Your task to perform on an android device: What's a good restaurant in Chicago? Image 0: 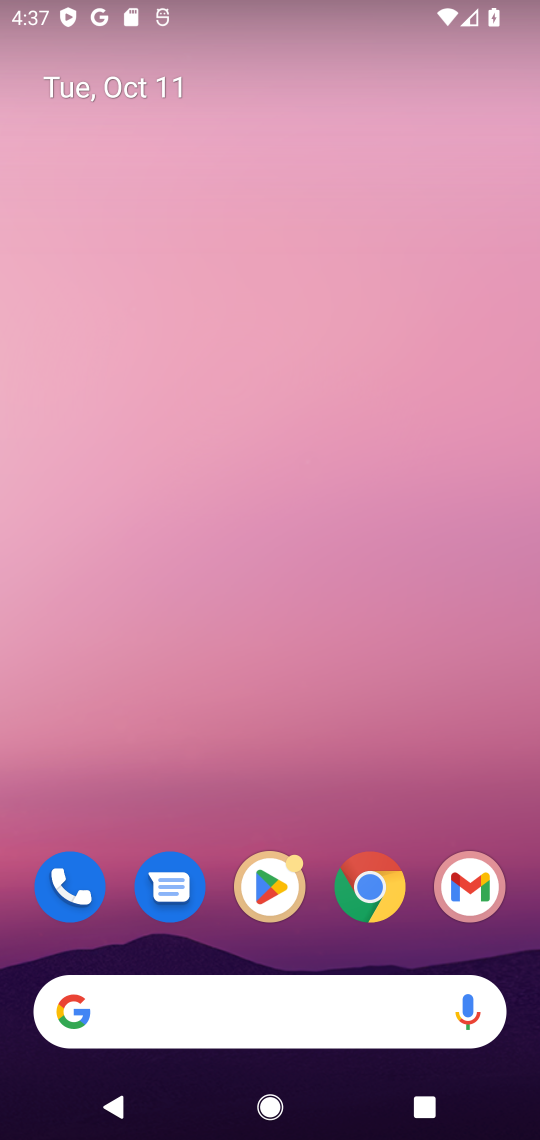
Step 0: click (328, 998)
Your task to perform on an android device: What's a good restaurant in Chicago? Image 1: 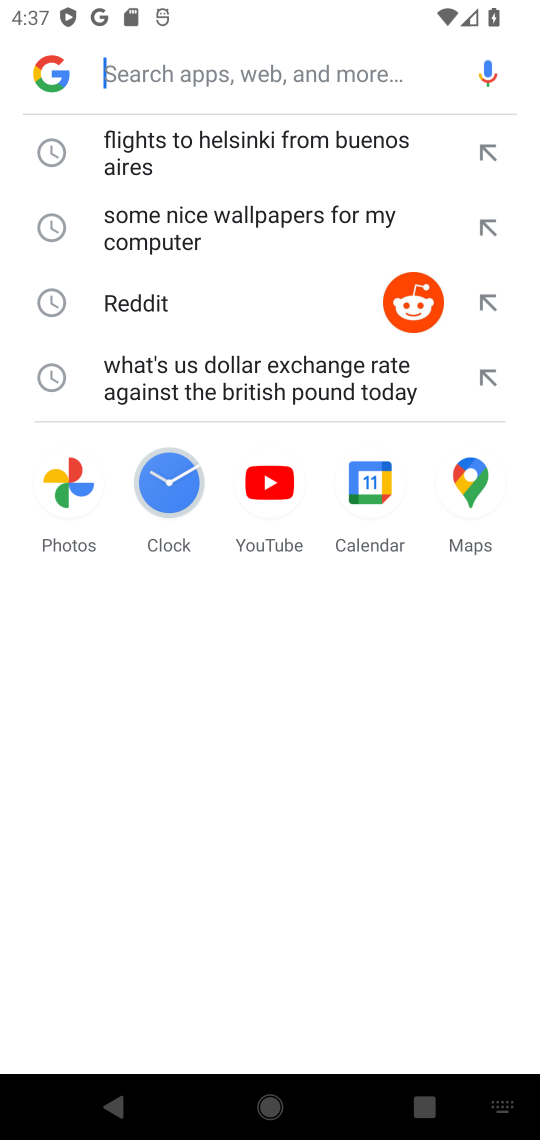
Step 1: type "good restaurant in Chicago"
Your task to perform on an android device: What's a good restaurant in Chicago? Image 2: 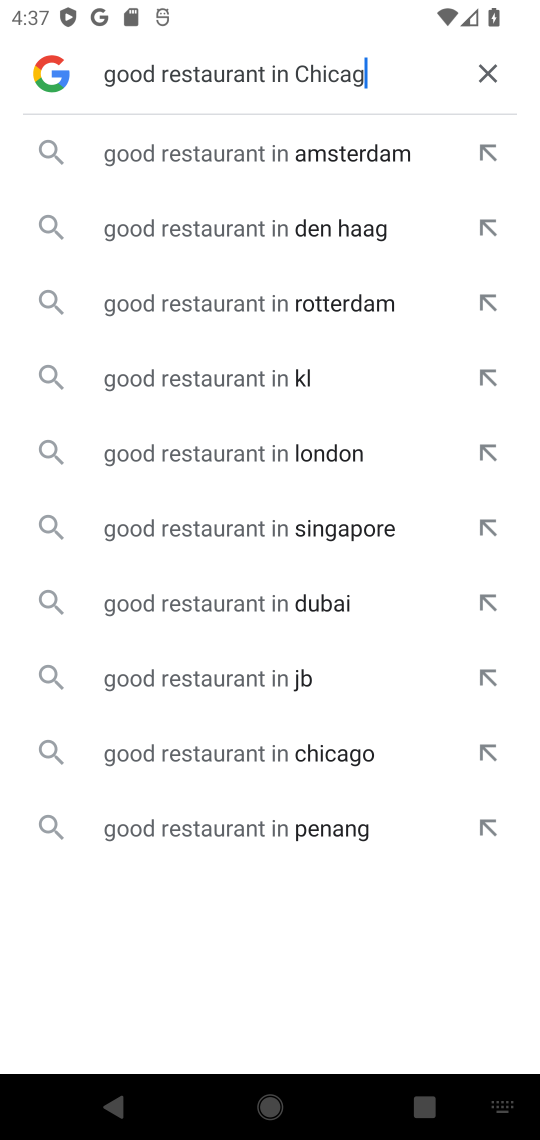
Step 2: type ""
Your task to perform on an android device: What's a good restaurant in Chicago? Image 3: 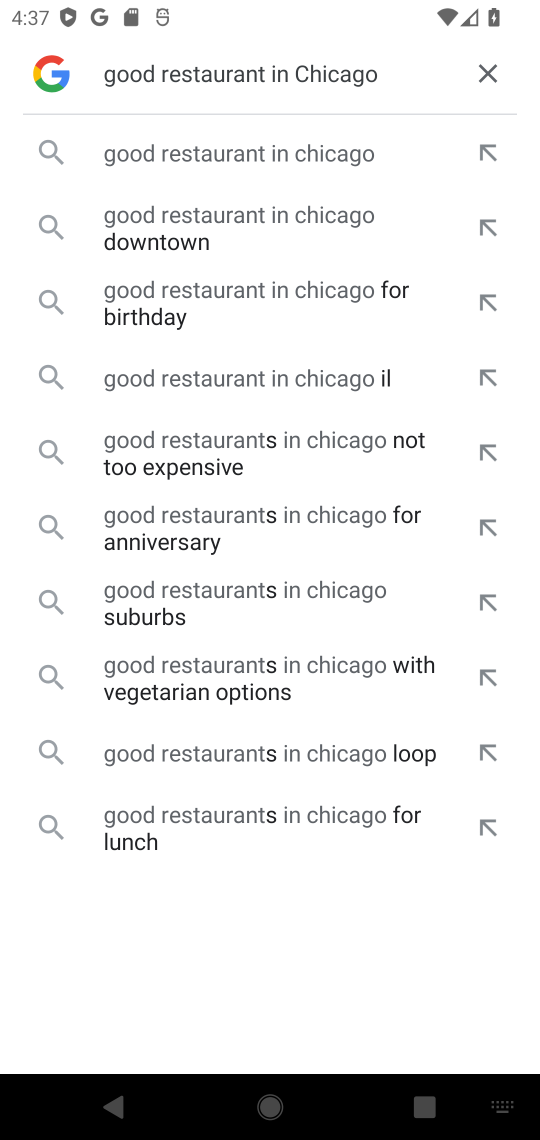
Step 3: type ""
Your task to perform on an android device: What's a good restaurant in Chicago? Image 4: 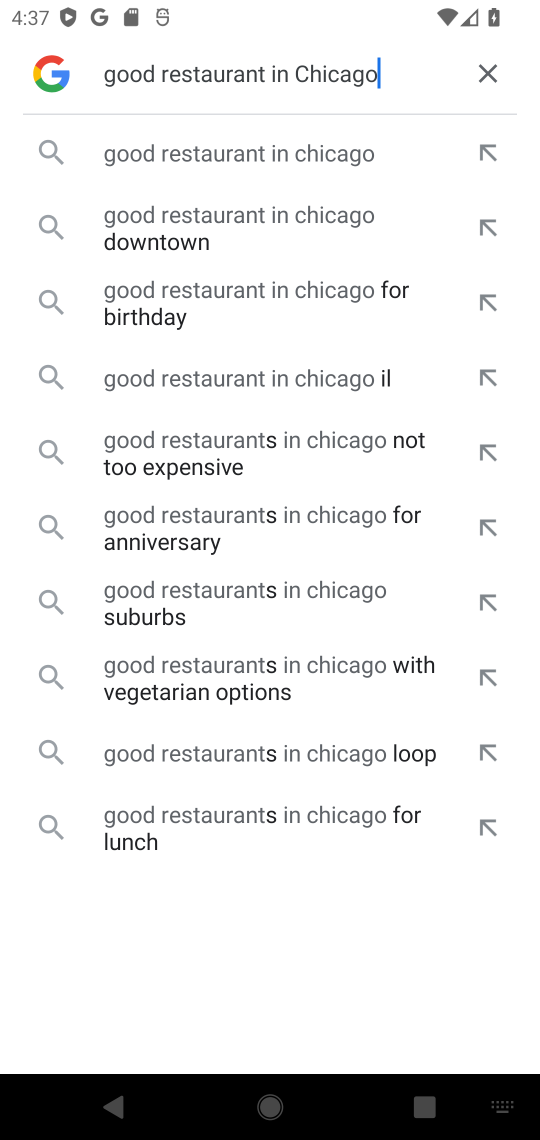
Step 4: press enter
Your task to perform on an android device: What's a good restaurant in Chicago? Image 5: 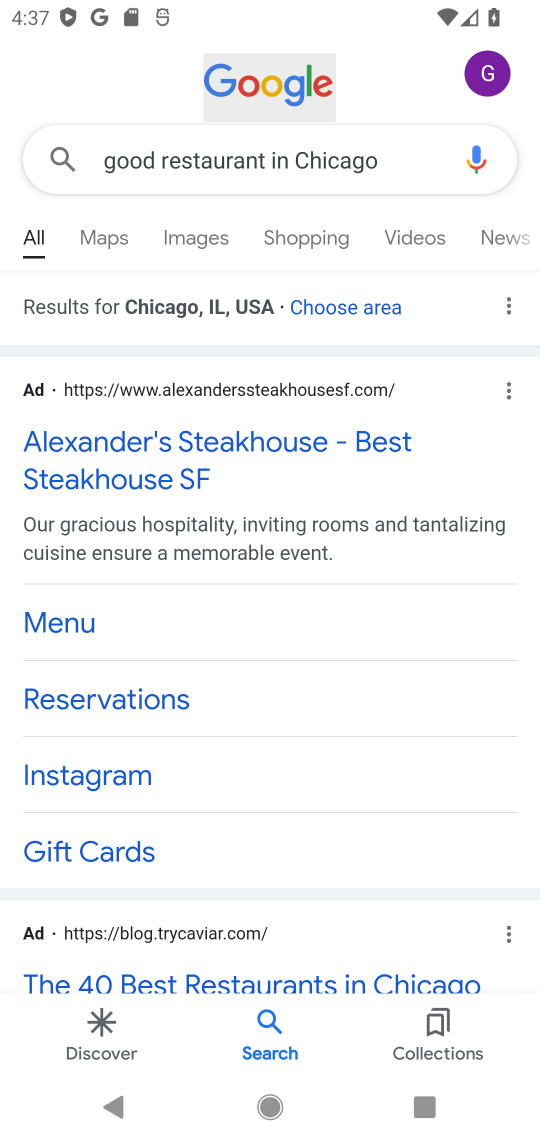
Step 5: drag from (299, 677) to (332, 492)
Your task to perform on an android device: What's a good restaurant in Chicago? Image 6: 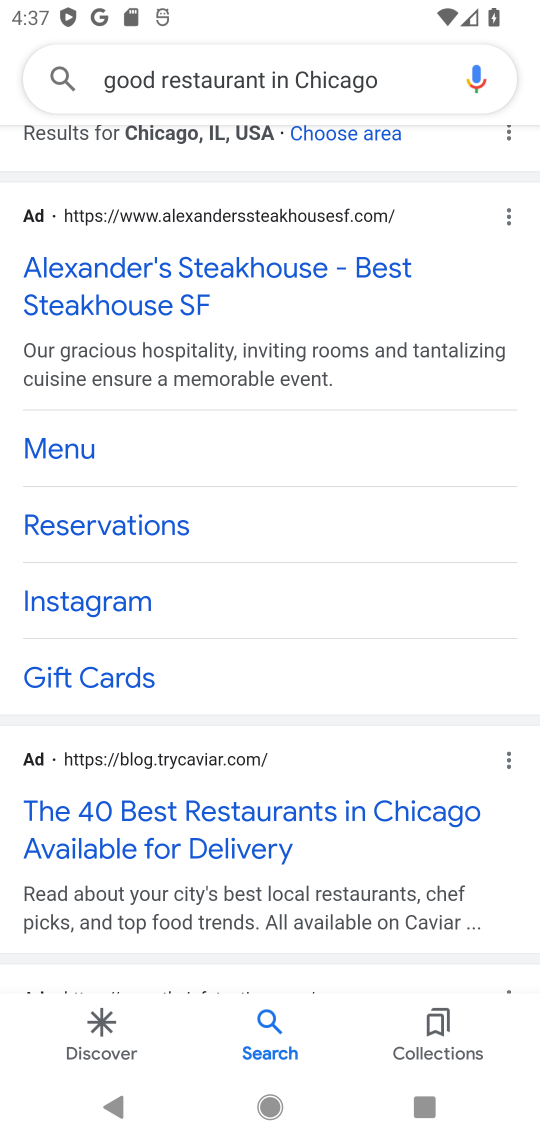
Step 6: click (238, 560)
Your task to perform on an android device: What's a good restaurant in Chicago? Image 7: 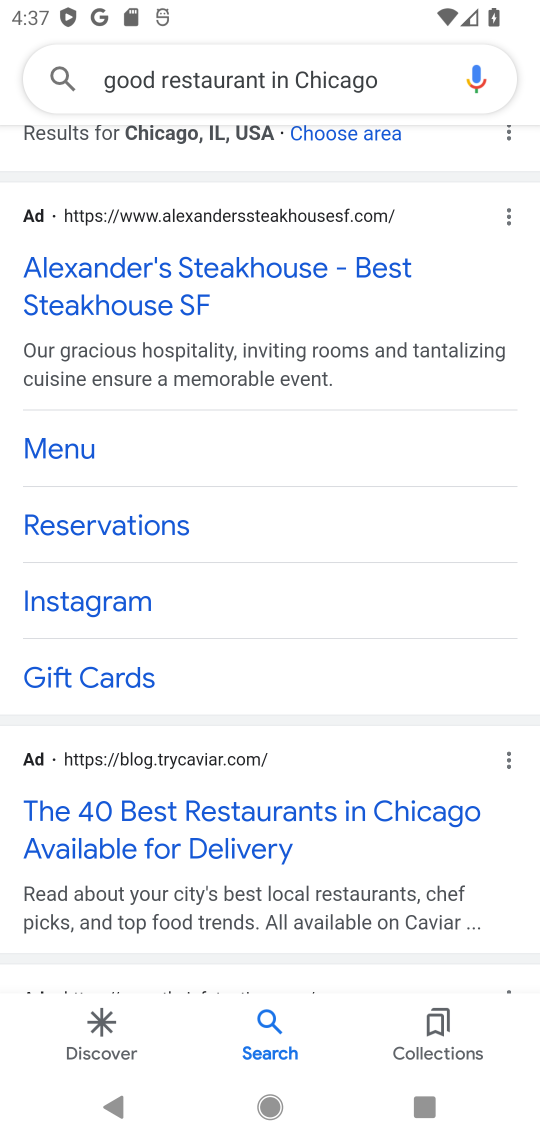
Step 7: click (175, 819)
Your task to perform on an android device: What's a good restaurant in Chicago? Image 8: 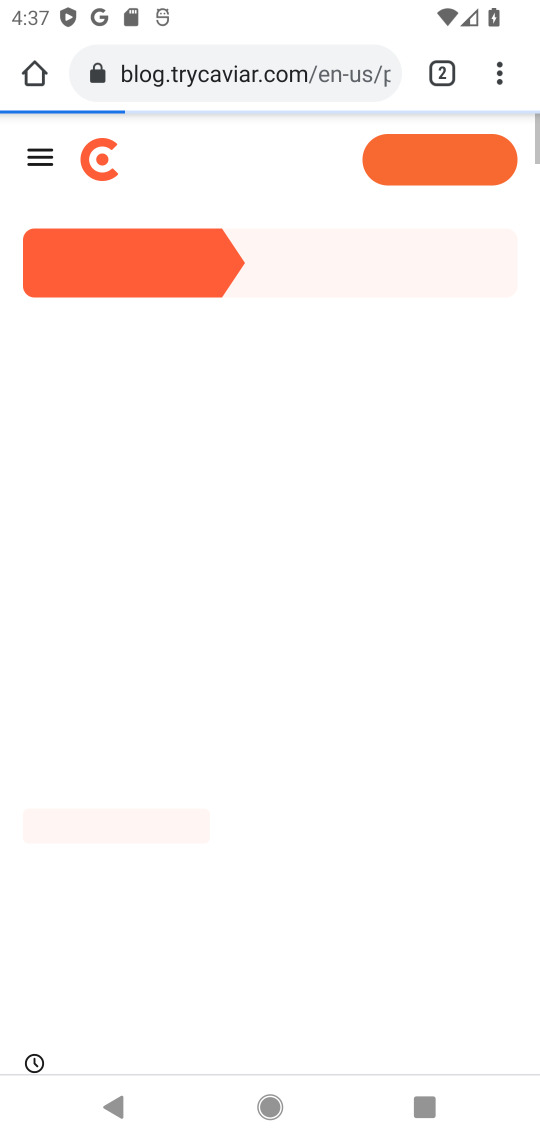
Step 8: click (175, 819)
Your task to perform on an android device: What's a good restaurant in Chicago? Image 9: 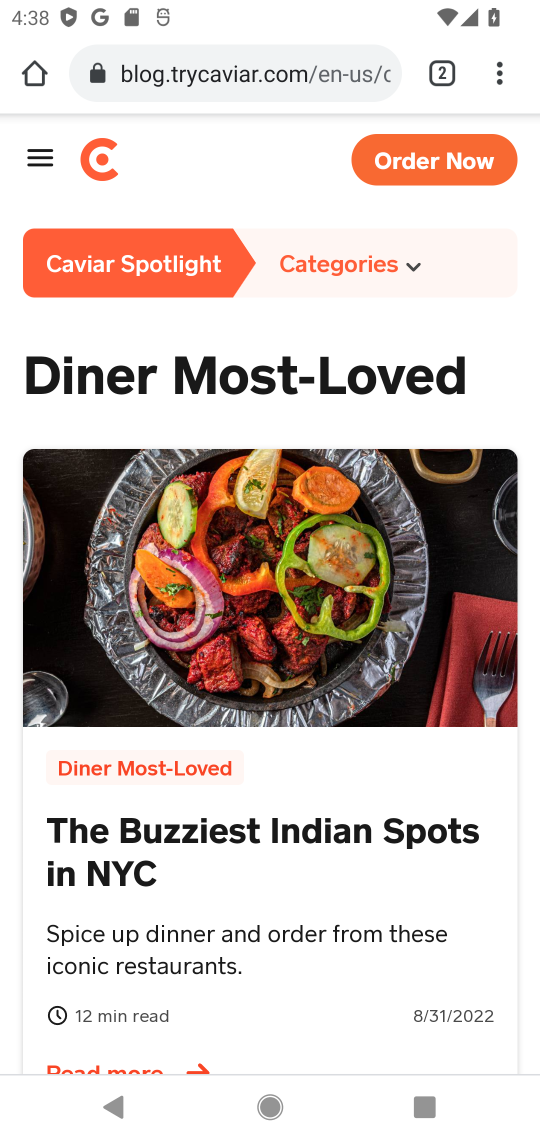
Step 9: drag from (484, 847) to (456, 313)
Your task to perform on an android device: What's a good restaurant in Chicago? Image 10: 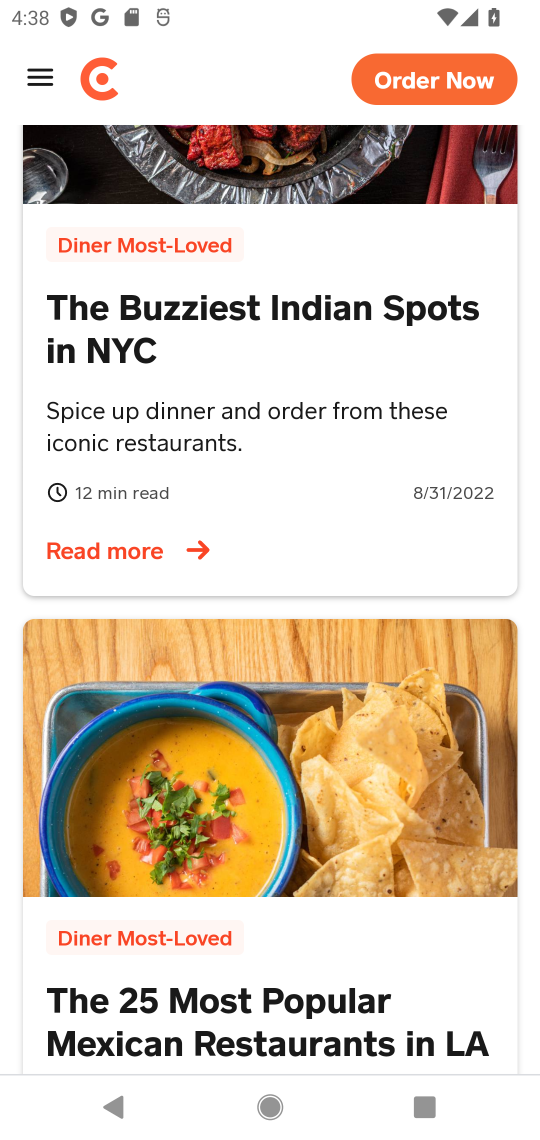
Step 10: drag from (510, 643) to (530, 1019)
Your task to perform on an android device: What's a good restaurant in Chicago? Image 11: 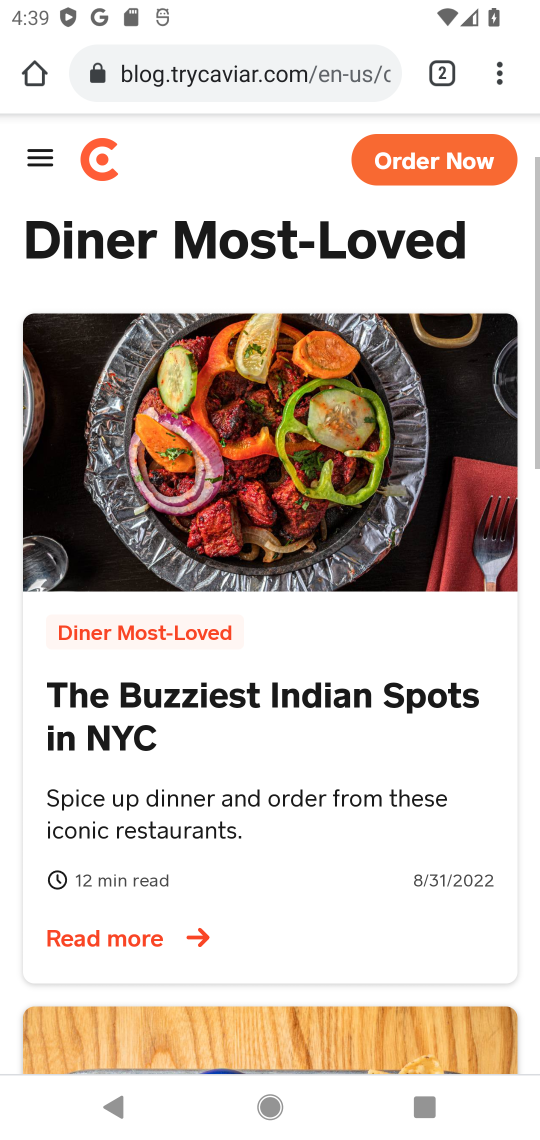
Step 11: drag from (362, 665) to (375, 571)
Your task to perform on an android device: What's a good restaurant in Chicago? Image 12: 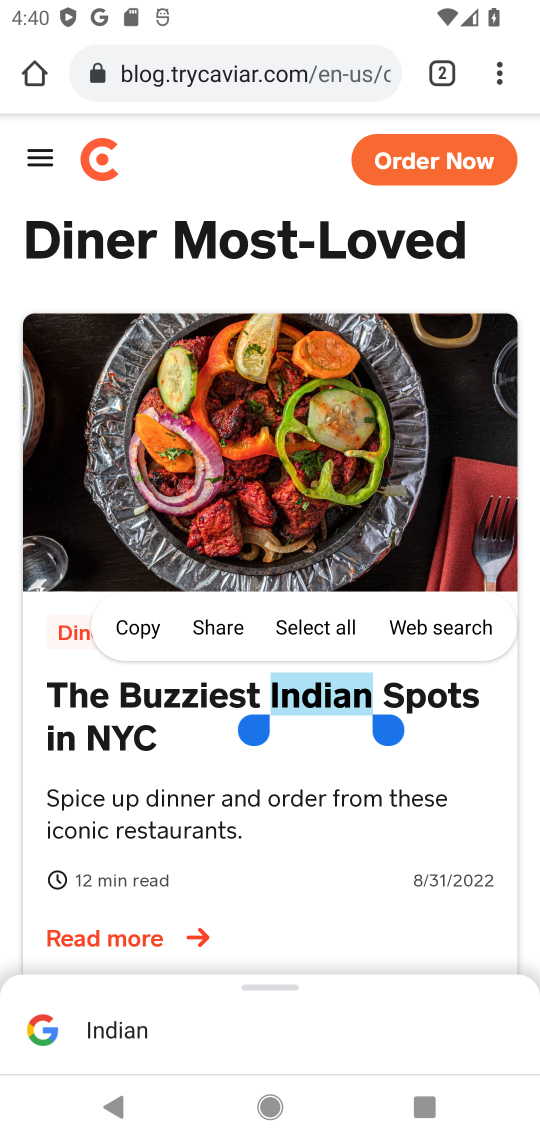
Step 12: click (336, 845)
Your task to perform on an android device: What's a good restaurant in Chicago? Image 13: 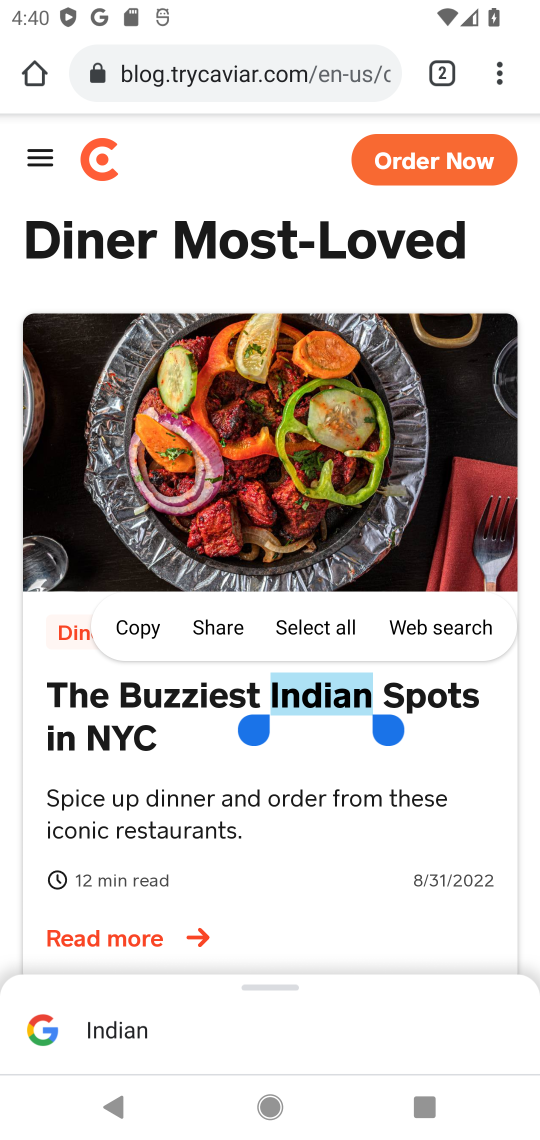
Step 13: drag from (336, 845) to (338, 712)
Your task to perform on an android device: What's a good restaurant in Chicago? Image 14: 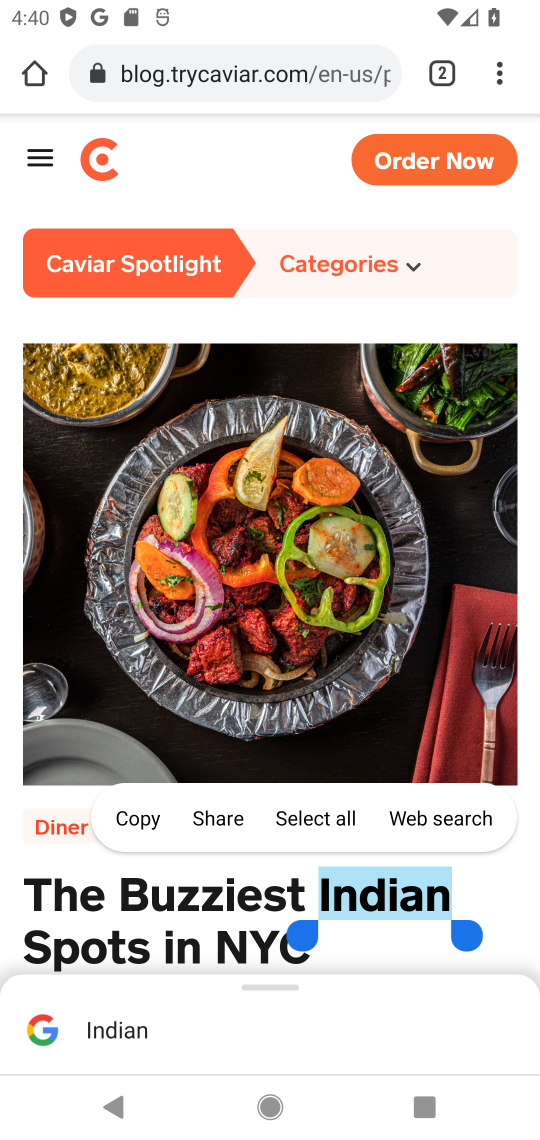
Step 14: click (519, 326)
Your task to perform on an android device: What's a good restaurant in Chicago? Image 15: 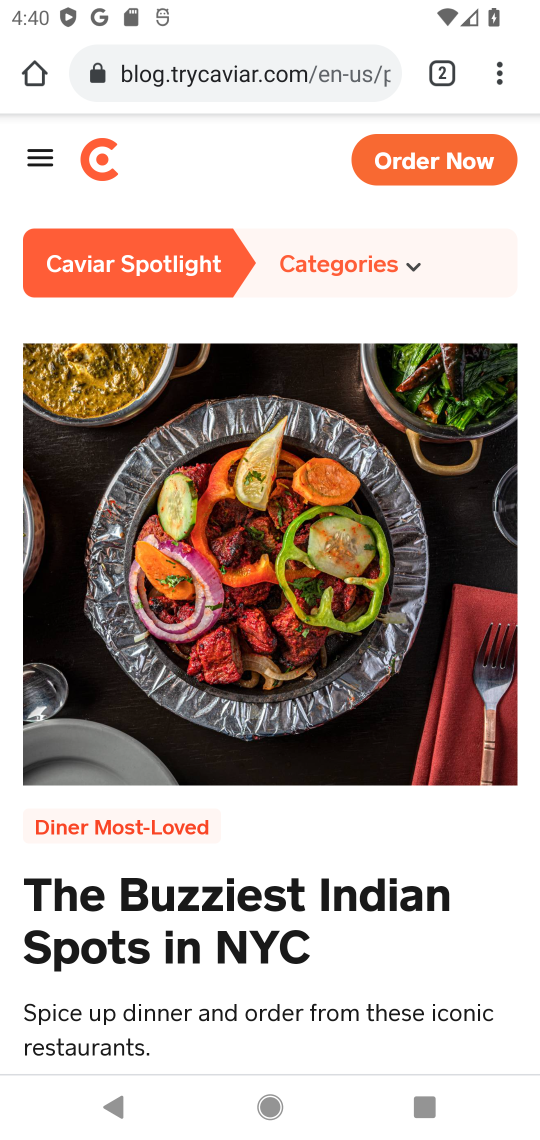
Step 15: task complete